Your task to perform on an android device: open app "Truecaller" (install if not already installed) Image 0: 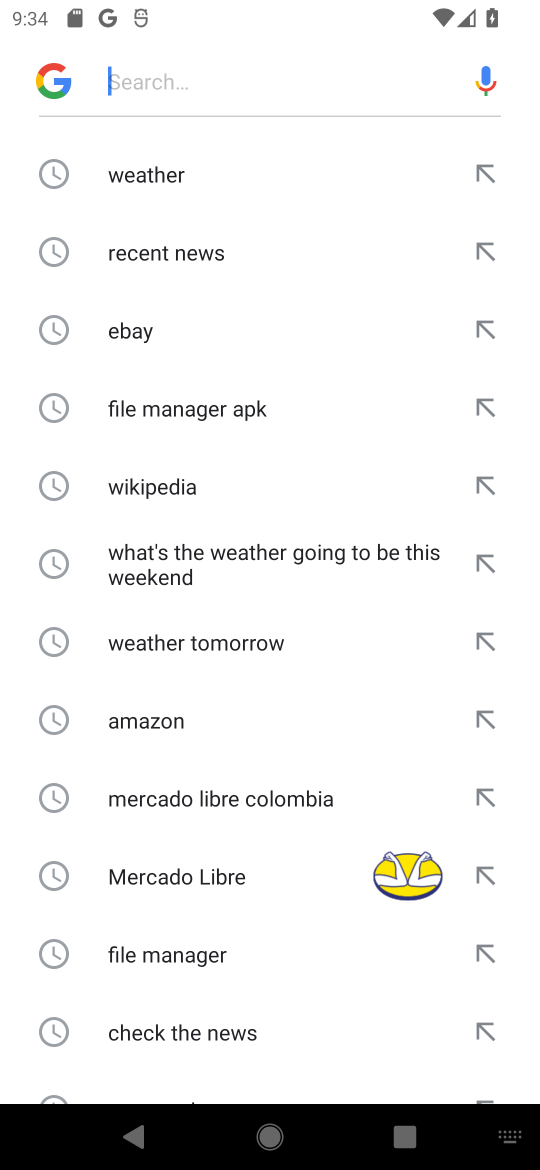
Step 0: press home button
Your task to perform on an android device: open app "Truecaller" (install if not already installed) Image 1: 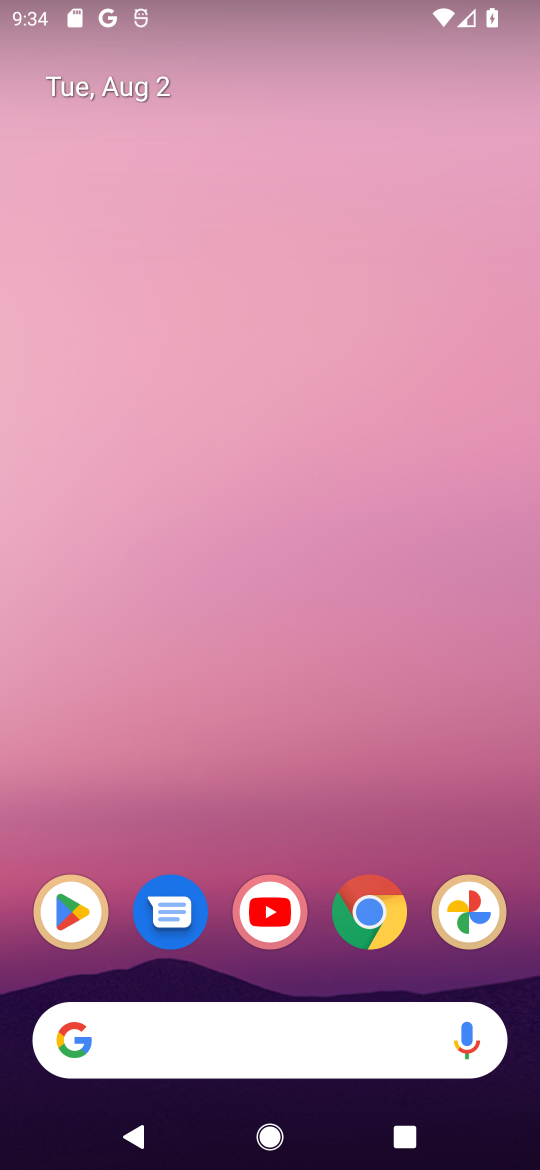
Step 1: click (68, 914)
Your task to perform on an android device: open app "Truecaller" (install if not already installed) Image 2: 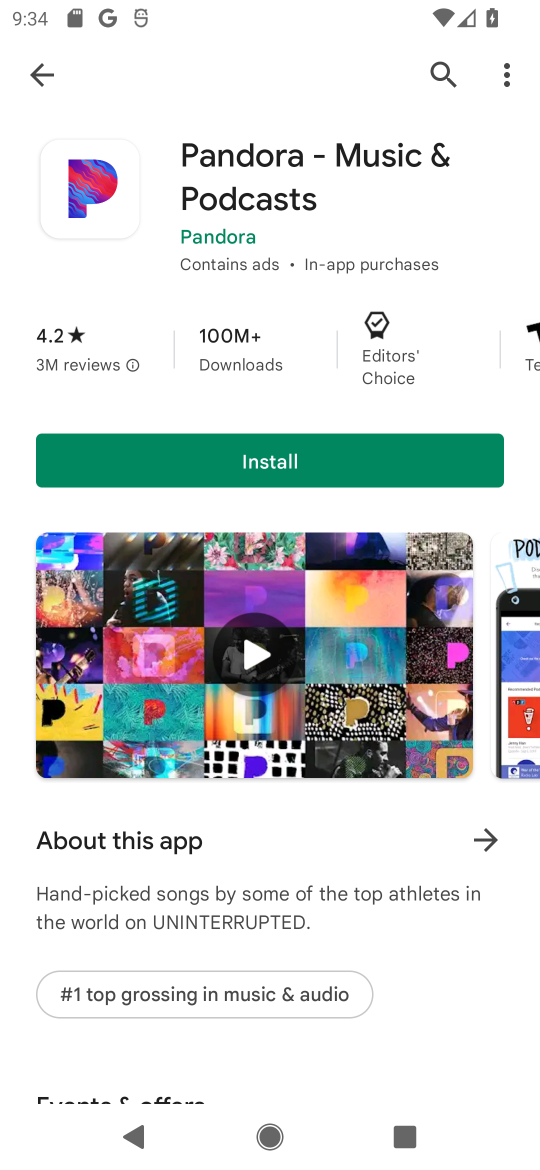
Step 2: click (438, 66)
Your task to perform on an android device: open app "Truecaller" (install if not already installed) Image 3: 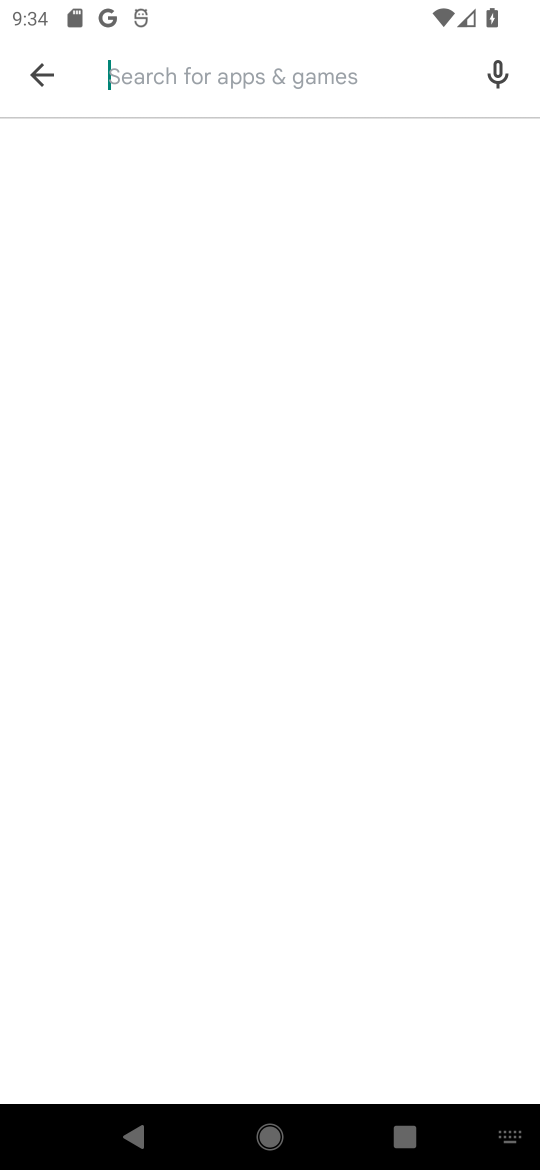
Step 3: type "Truecaller"
Your task to perform on an android device: open app "Truecaller" (install if not already installed) Image 4: 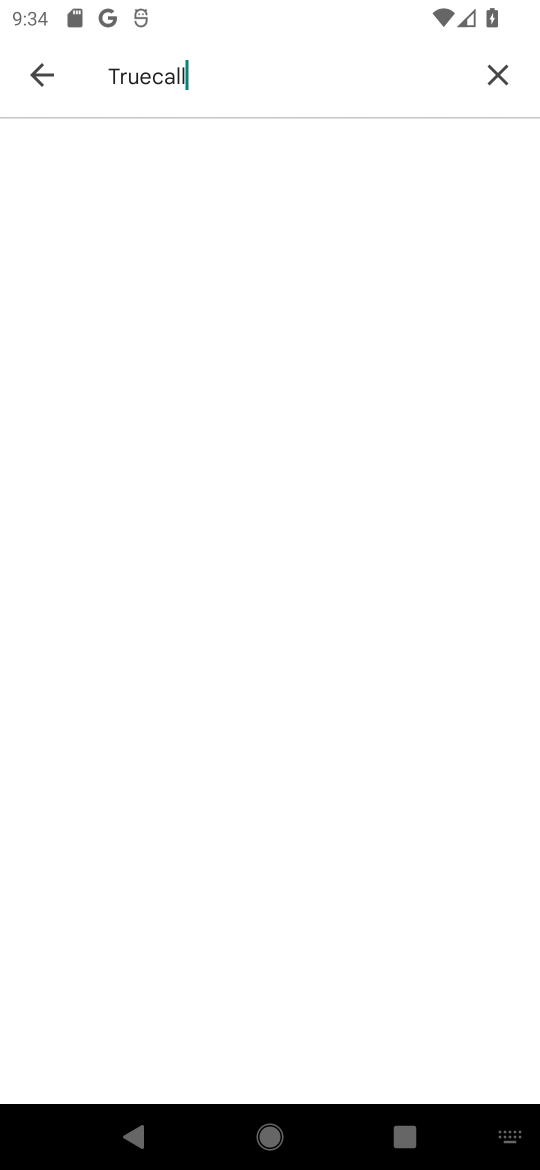
Step 4: type ""
Your task to perform on an android device: open app "Truecaller" (install if not already installed) Image 5: 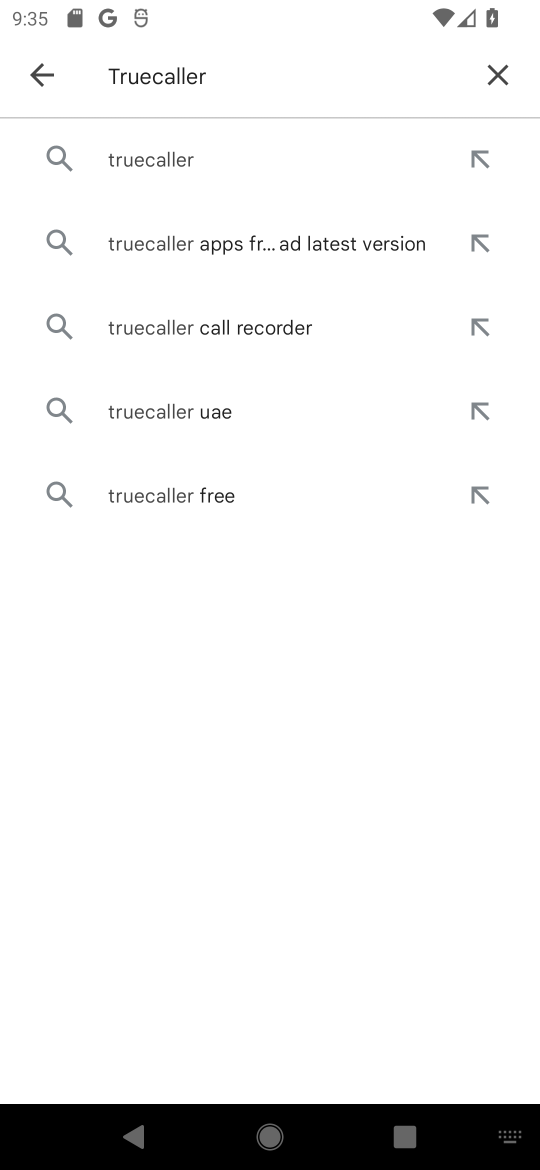
Step 5: click (111, 154)
Your task to perform on an android device: open app "Truecaller" (install if not already installed) Image 6: 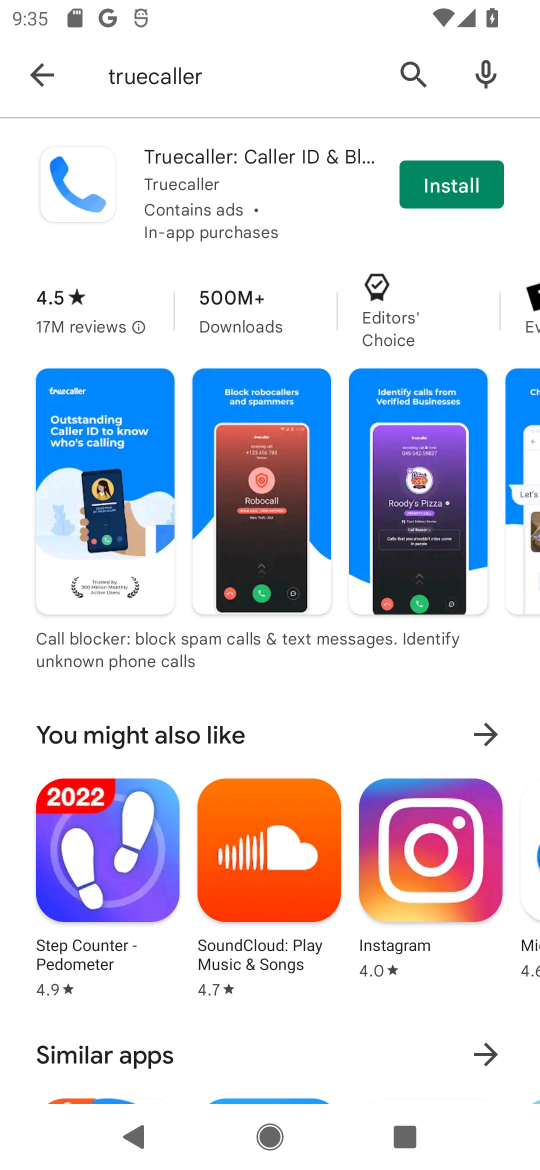
Step 6: click (482, 187)
Your task to perform on an android device: open app "Truecaller" (install if not already installed) Image 7: 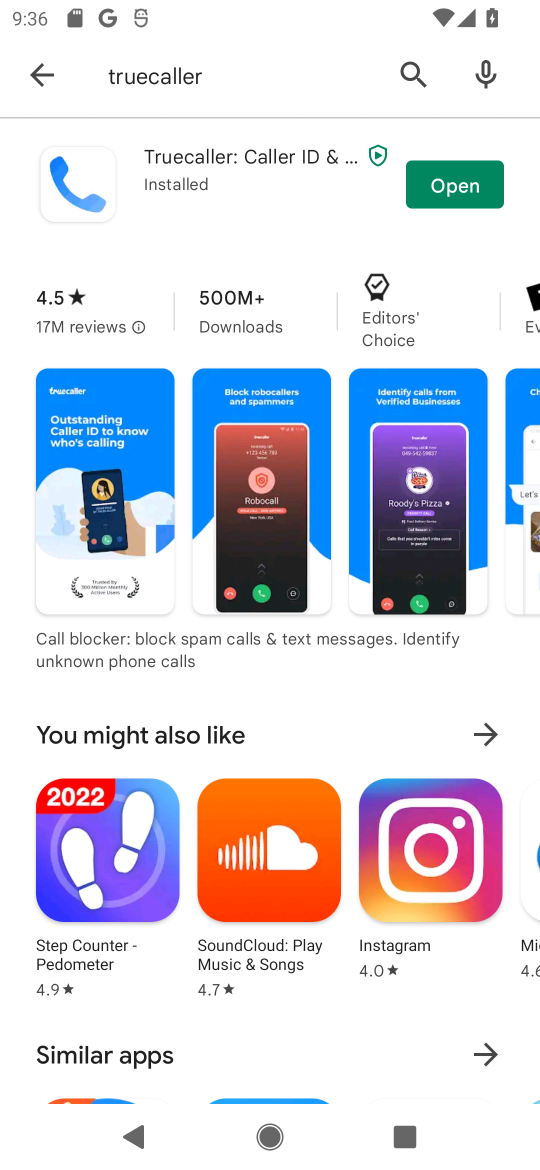
Step 7: click (463, 190)
Your task to perform on an android device: open app "Truecaller" (install if not already installed) Image 8: 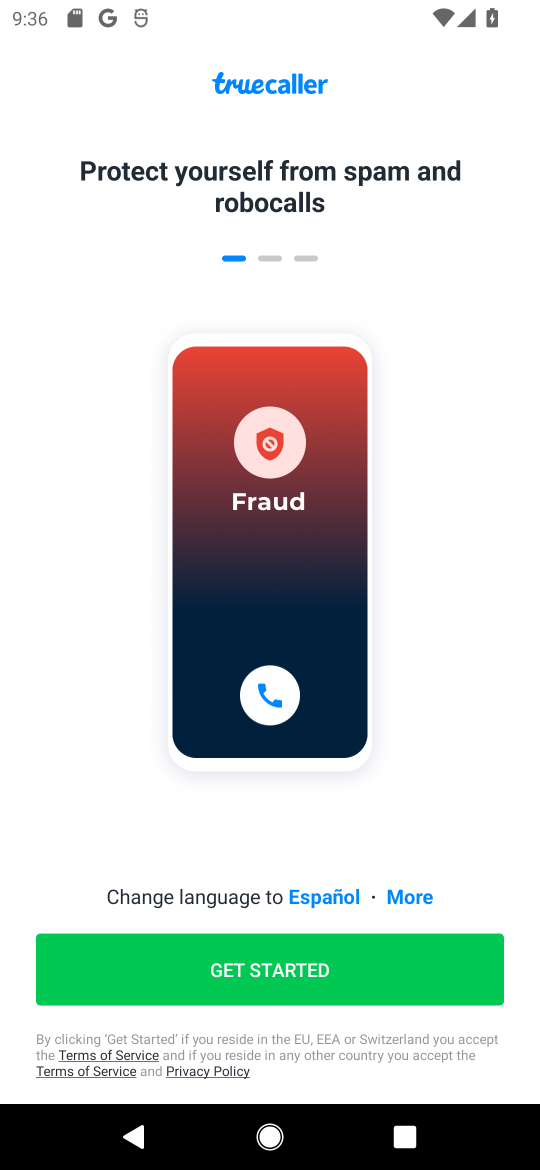
Step 8: click (279, 973)
Your task to perform on an android device: open app "Truecaller" (install if not already installed) Image 9: 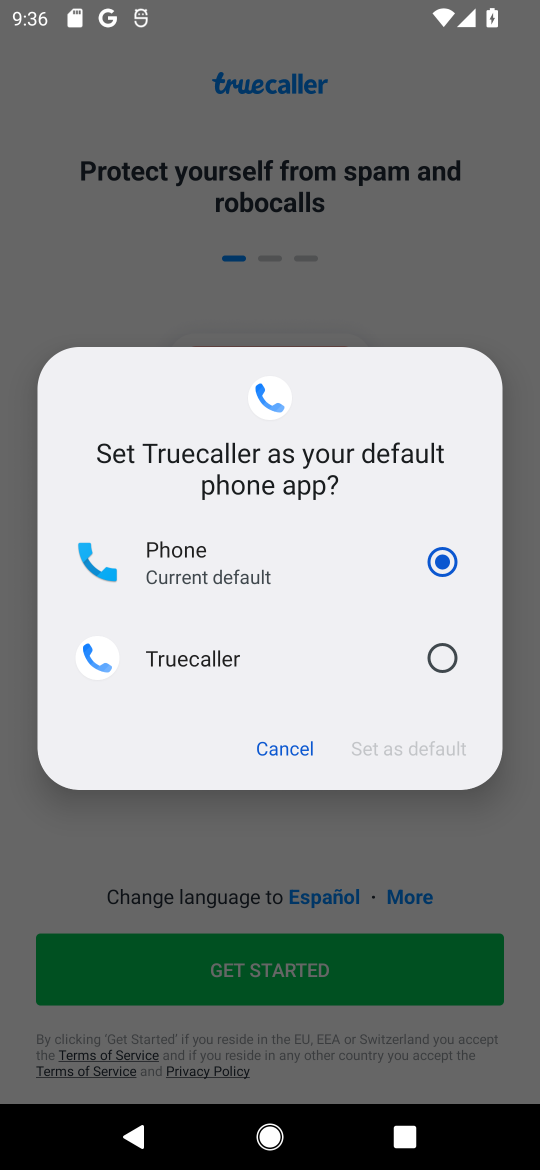
Step 9: click (453, 645)
Your task to perform on an android device: open app "Truecaller" (install if not already installed) Image 10: 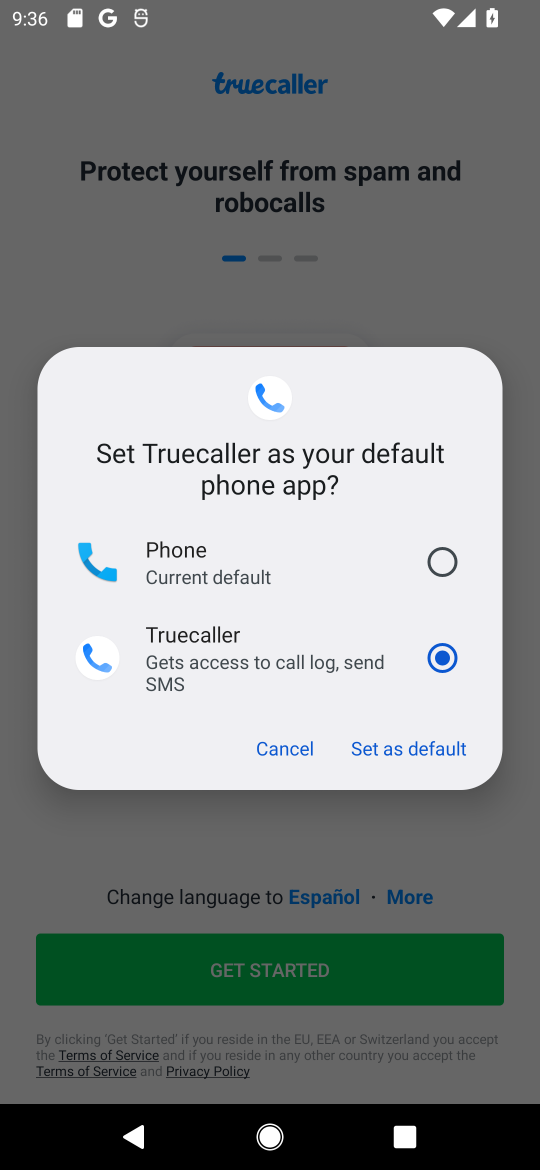
Step 10: click (431, 755)
Your task to perform on an android device: open app "Truecaller" (install if not already installed) Image 11: 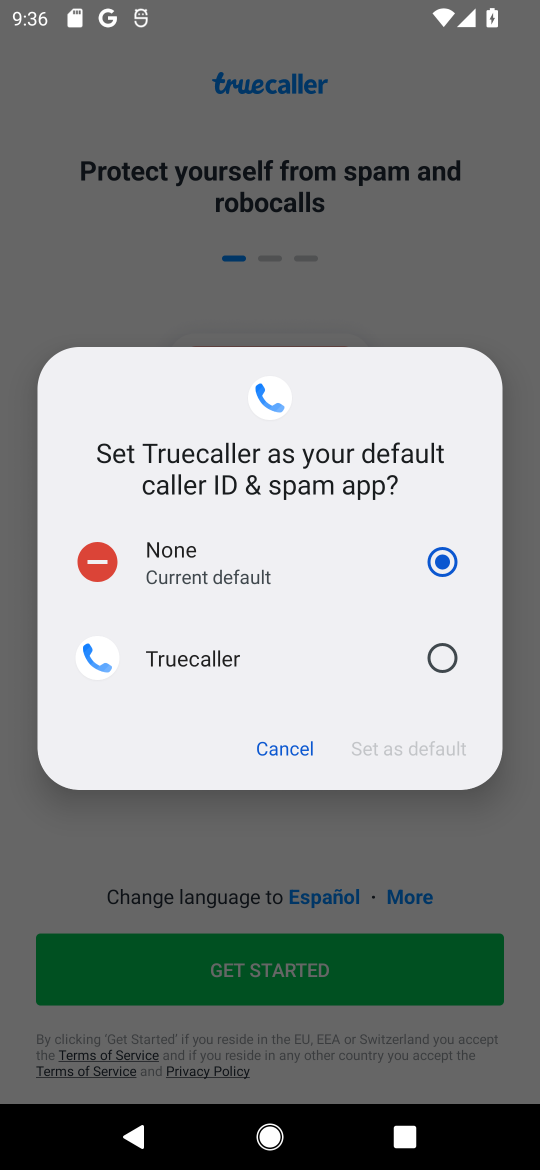
Step 11: click (441, 663)
Your task to perform on an android device: open app "Truecaller" (install if not already installed) Image 12: 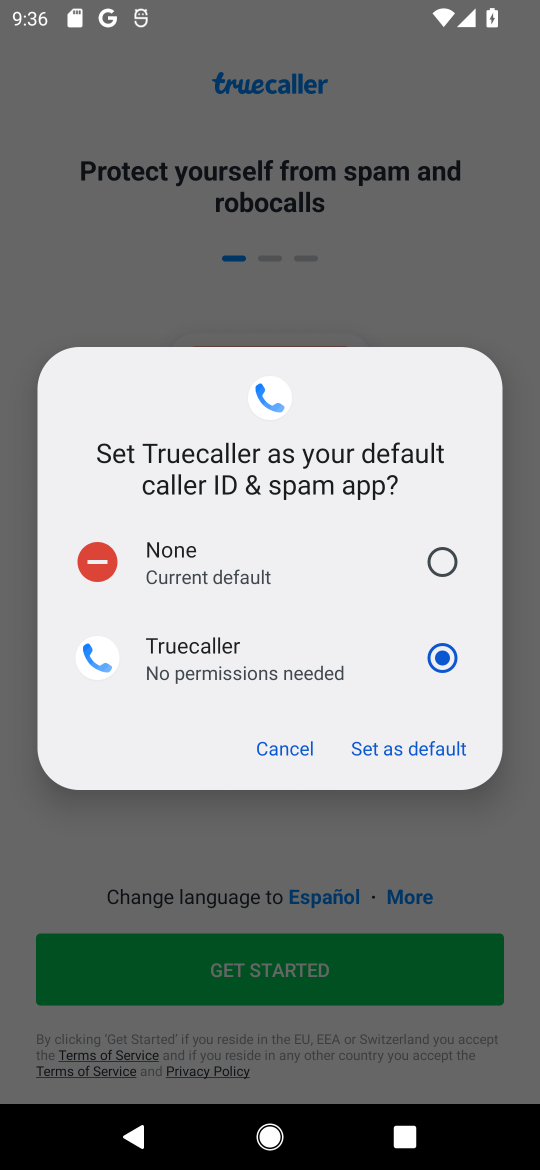
Step 12: click (423, 749)
Your task to perform on an android device: open app "Truecaller" (install if not already installed) Image 13: 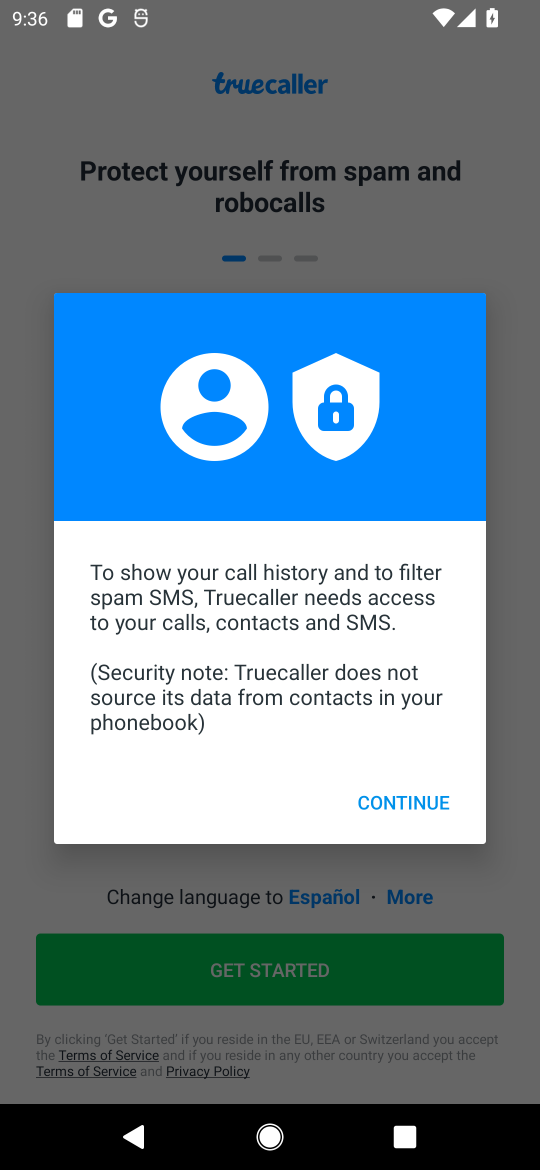
Step 13: click (392, 808)
Your task to perform on an android device: open app "Truecaller" (install if not already installed) Image 14: 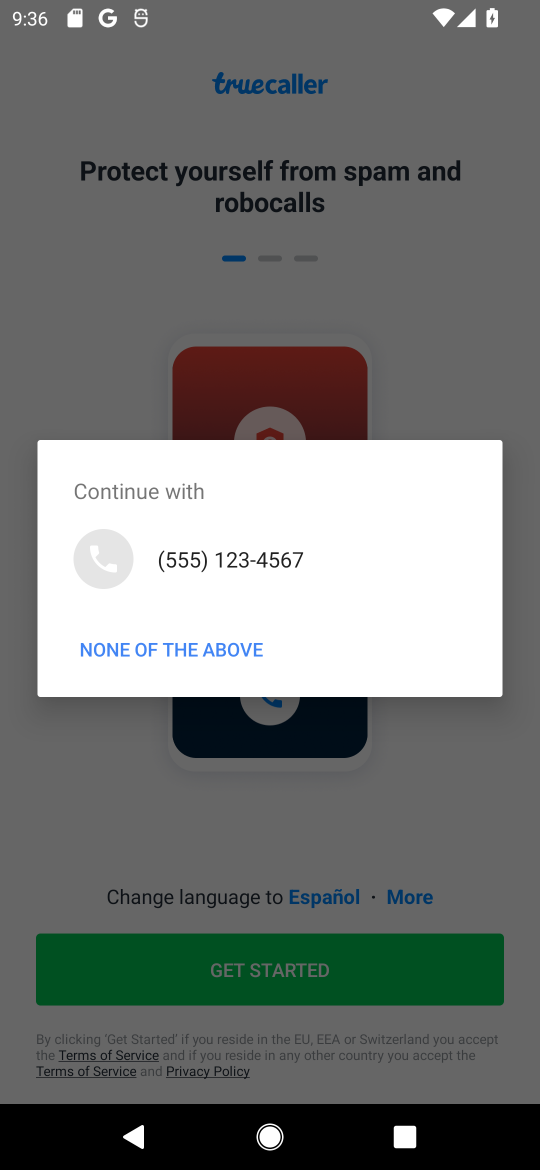
Step 14: click (227, 551)
Your task to perform on an android device: open app "Truecaller" (install if not already installed) Image 15: 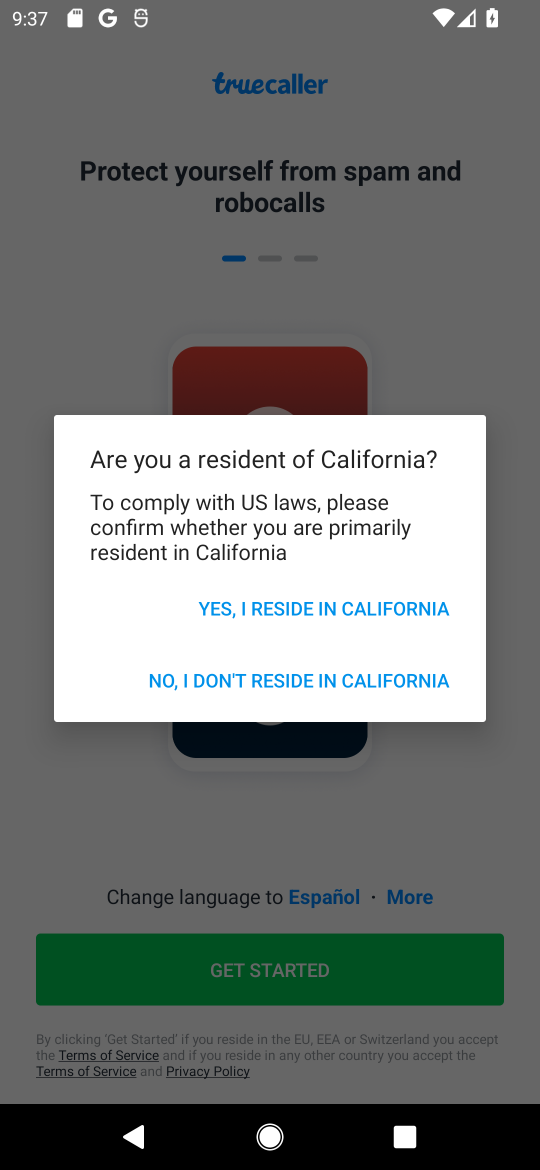
Step 15: click (320, 675)
Your task to perform on an android device: open app "Truecaller" (install if not already installed) Image 16: 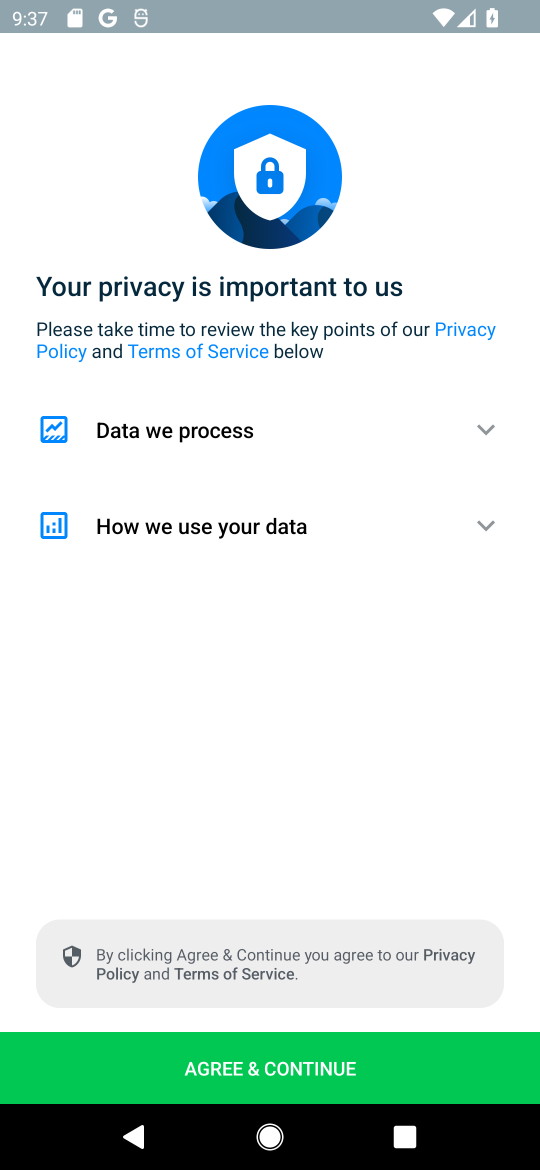
Step 16: click (262, 1068)
Your task to perform on an android device: open app "Truecaller" (install if not already installed) Image 17: 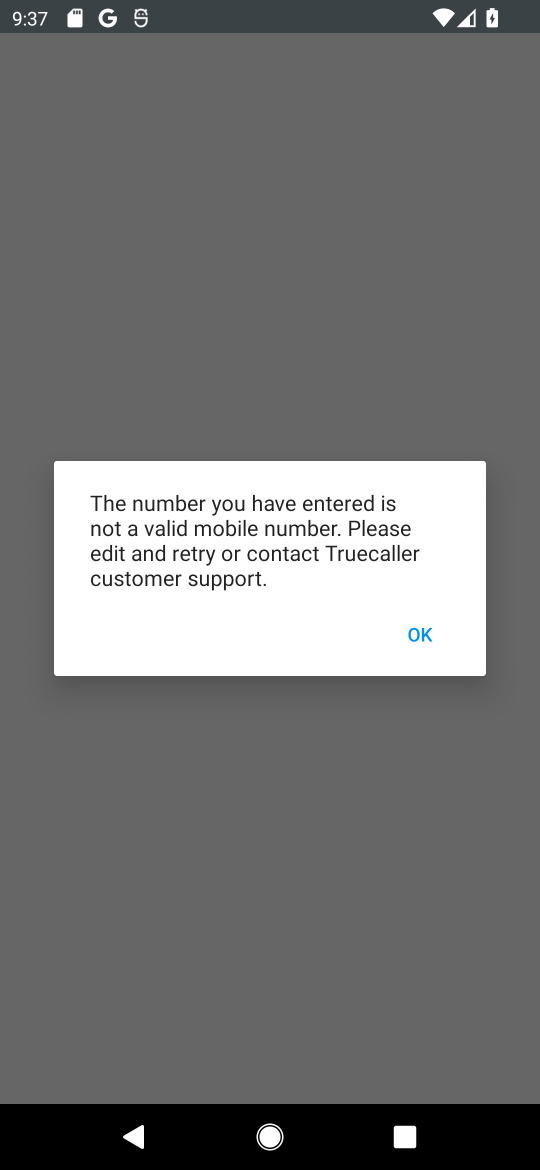
Step 17: click (414, 645)
Your task to perform on an android device: open app "Truecaller" (install if not already installed) Image 18: 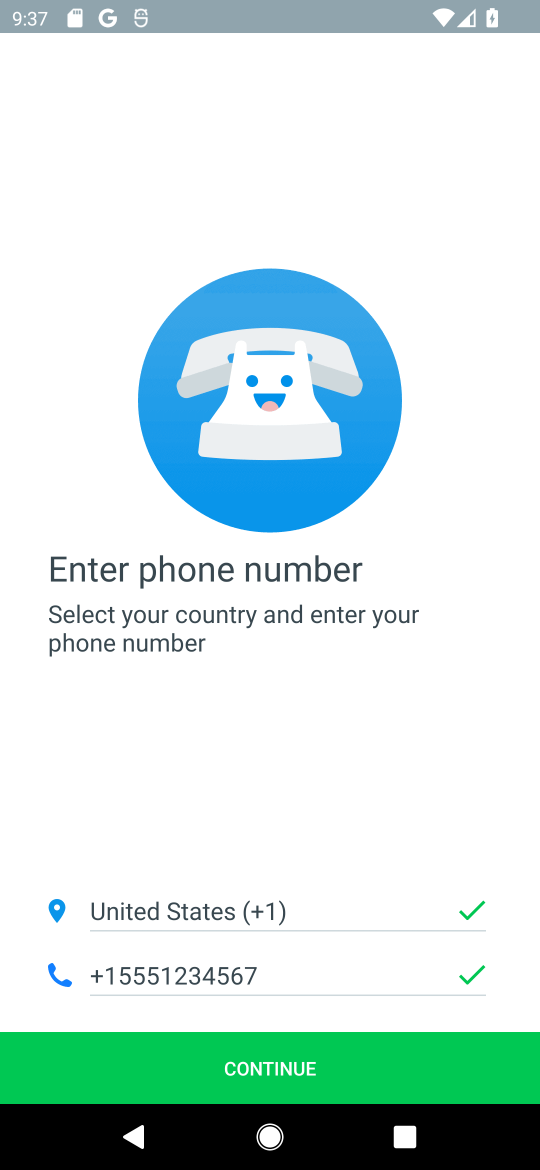
Step 18: click (286, 1070)
Your task to perform on an android device: open app "Truecaller" (install if not already installed) Image 19: 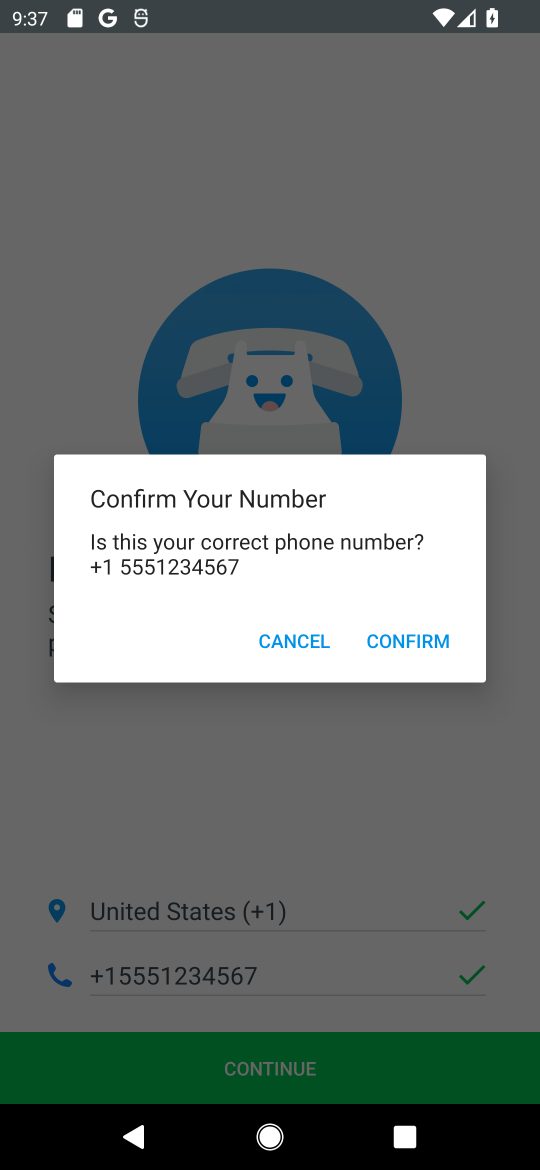
Step 19: click (409, 638)
Your task to perform on an android device: open app "Truecaller" (install if not already installed) Image 20: 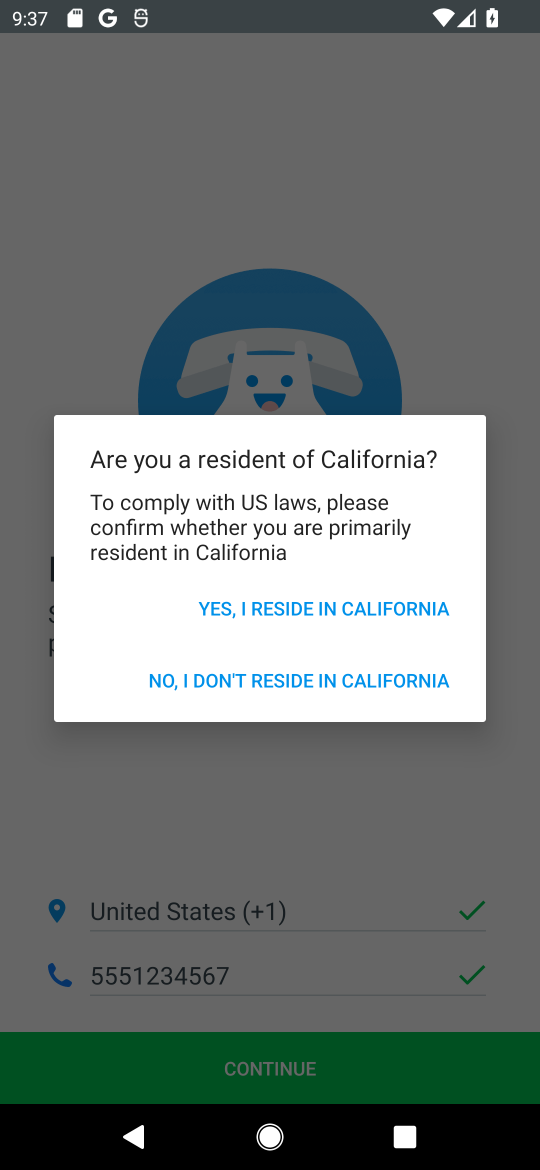
Step 20: task complete